Your task to perform on an android device: What's on my calendar today? Image 0: 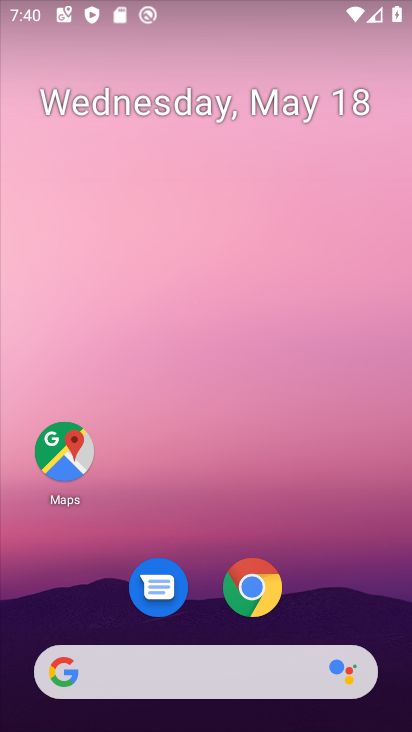
Step 0: click (160, 106)
Your task to perform on an android device: What's on my calendar today? Image 1: 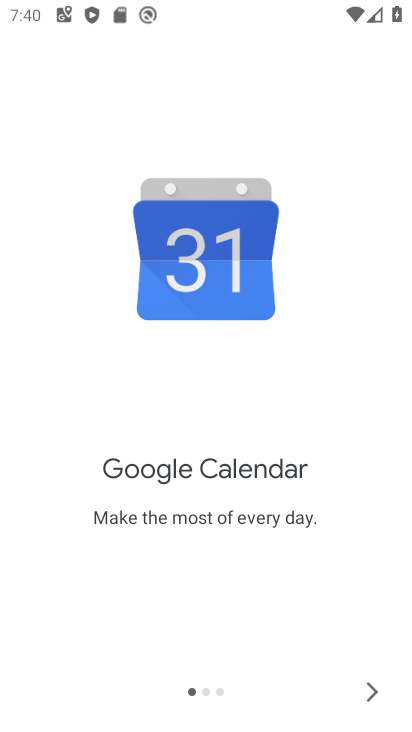
Step 1: click (369, 693)
Your task to perform on an android device: What's on my calendar today? Image 2: 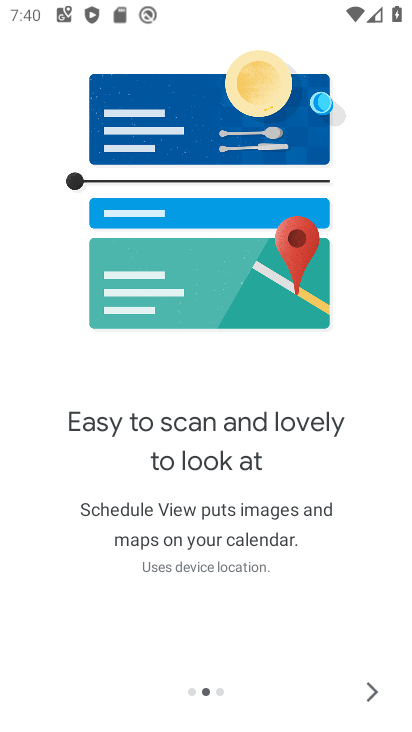
Step 2: click (369, 693)
Your task to perform on an android device: What's on my calendar today? Image 3: 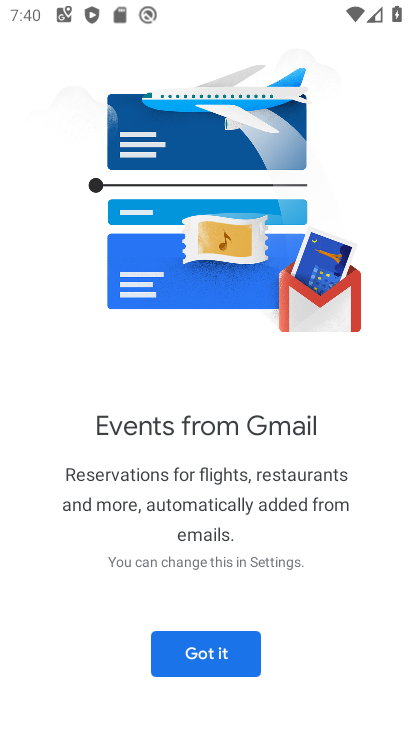
Step 3: click (226, 660)
Your task to perform on an android device: What's on my calendar today? Image 4: 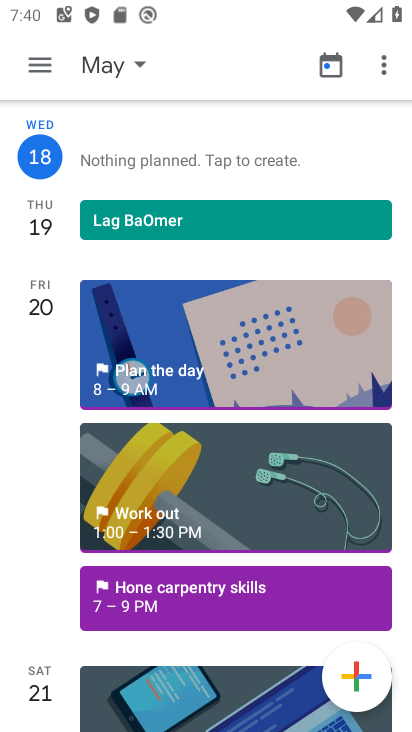
Step 4: click (112, 50)
Your task to perform on an android device: What's on my calendar today? Image 5: 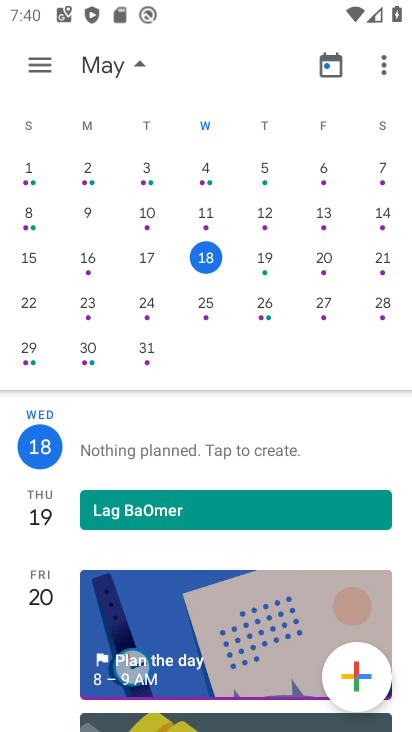
Step 5: click (273, 269)
Your task to perform on an android device: What's on my calendar today? Image 6: 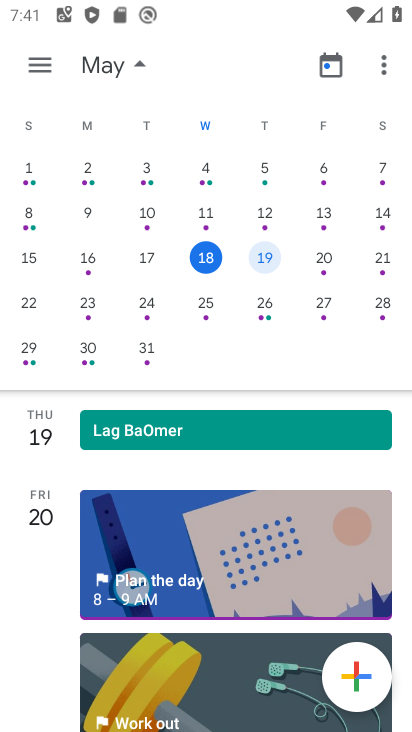
Step 6: task complete